Your task to perform on an android device: turn off sleep mode Image 0: 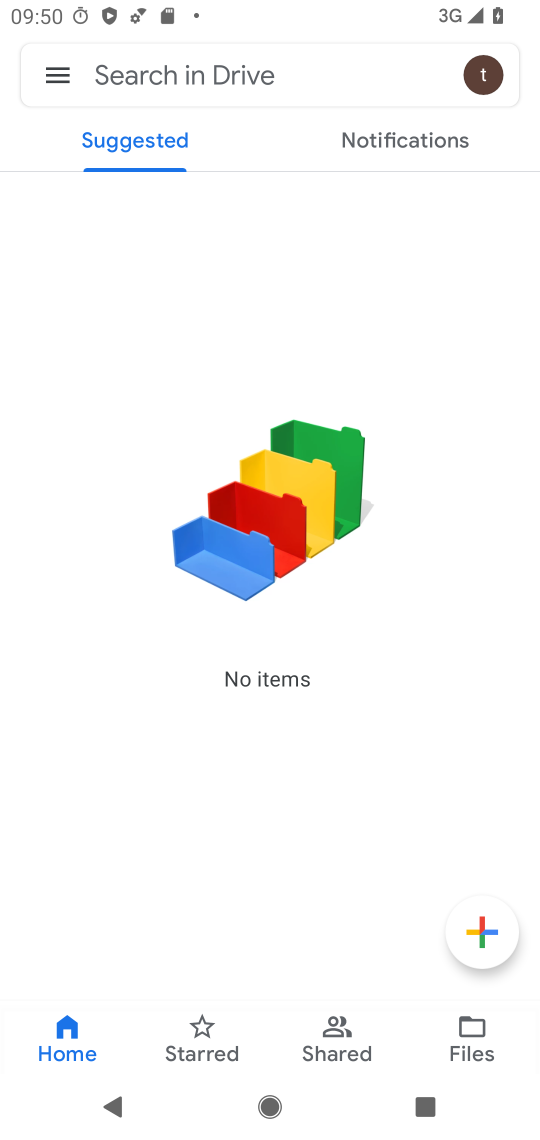
Step 0: press home button
Your task to perform on an android device: turn off sleep mode Image 1: 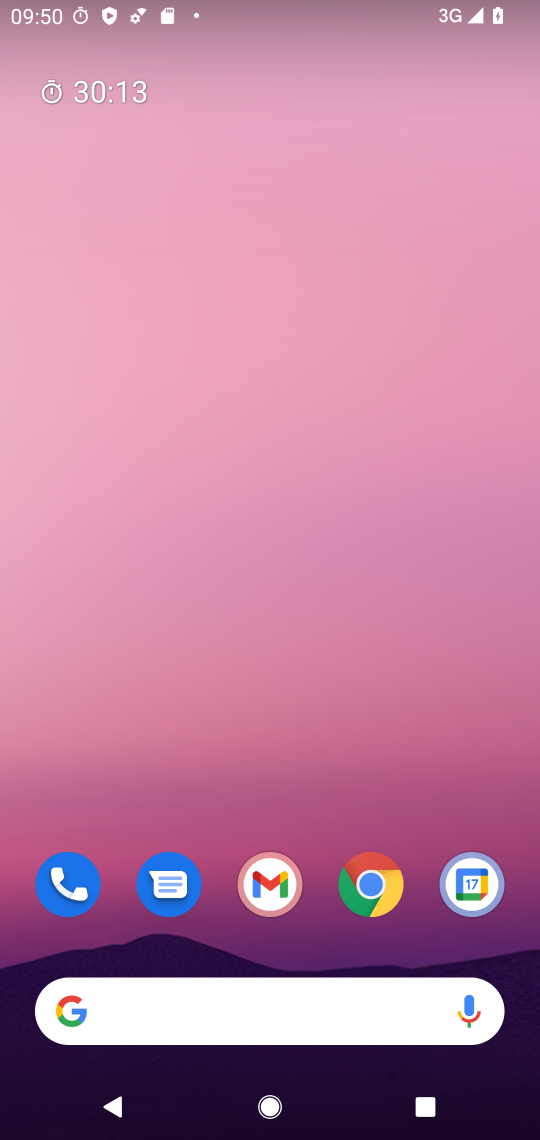
Step 1: drag from (283, 762) to (260, 239)
Your task to perform on an android device: turn off sleep mode Image 2: 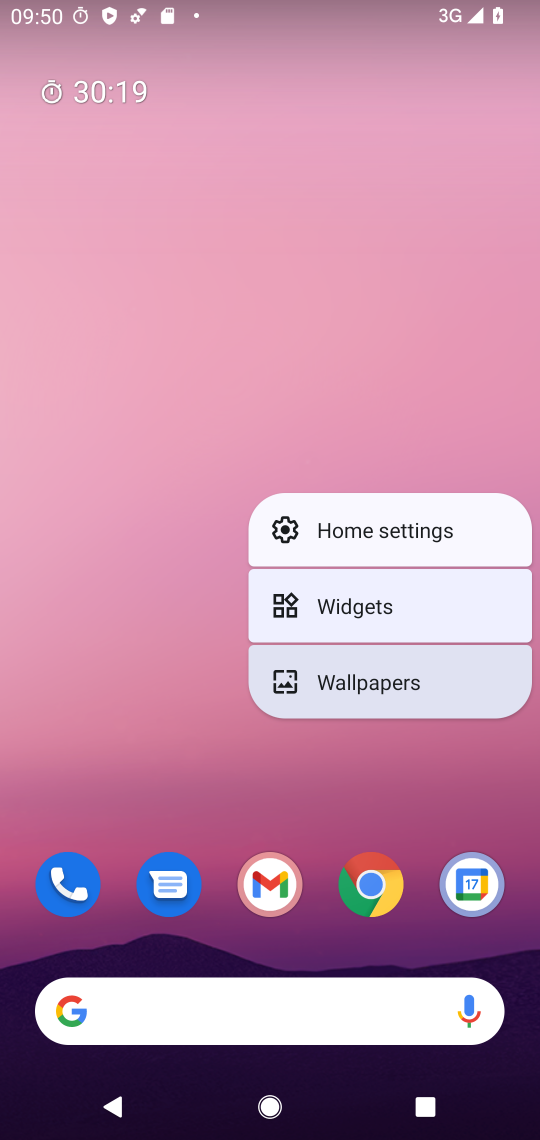
Step 2: click (232, 758)
Your task to perform on an android device: turn off sleep mode Image 3: 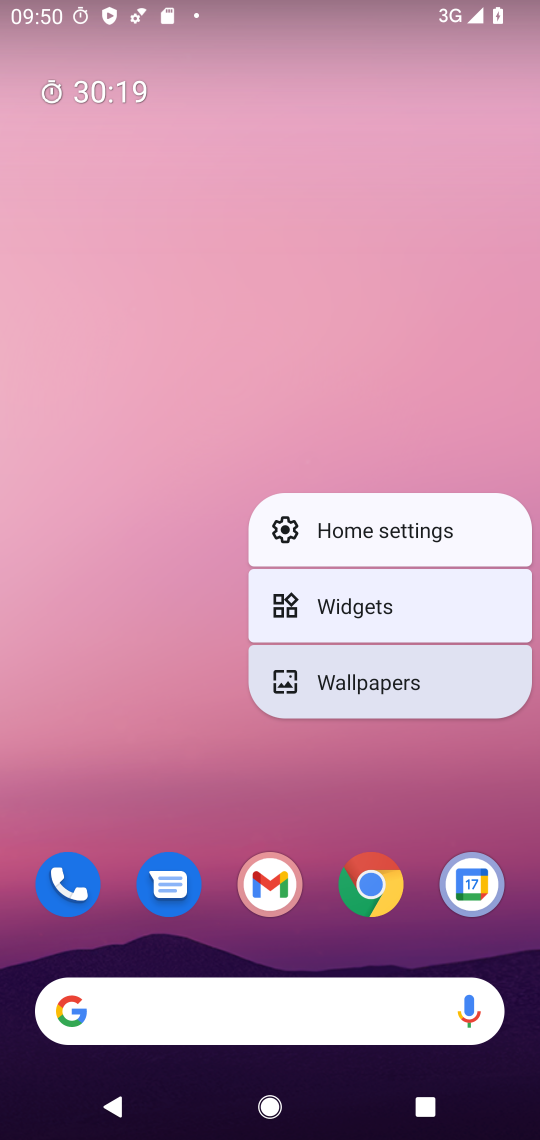
Step 3: drag from (232, 758) to (179, 317)
Your task to perform on an android device: turn off sleep mode Image 4: 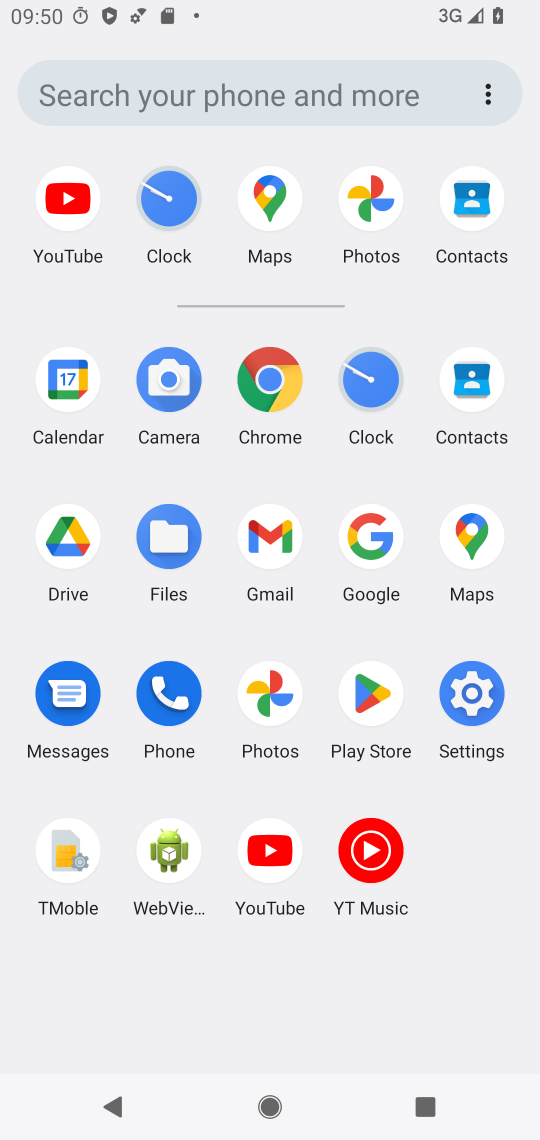
Step 4: click (440, 699)
Your task to perform on an android device: turn off sleep mode Image 5: 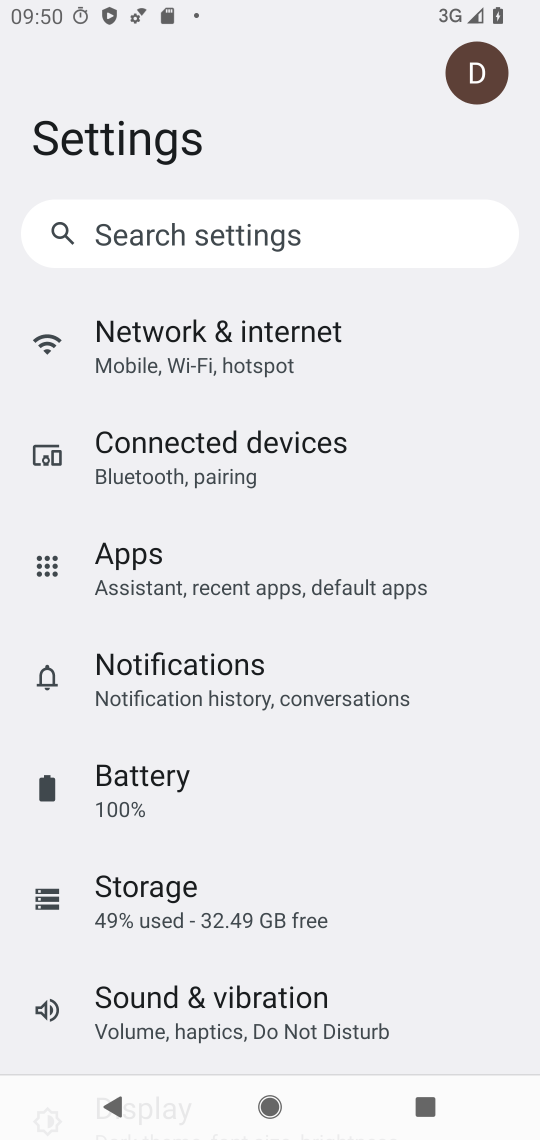
Step 5: drag from (152, 808) to (218, 347)
Your task to perform on an android device: turn off sleep mode Image 6: 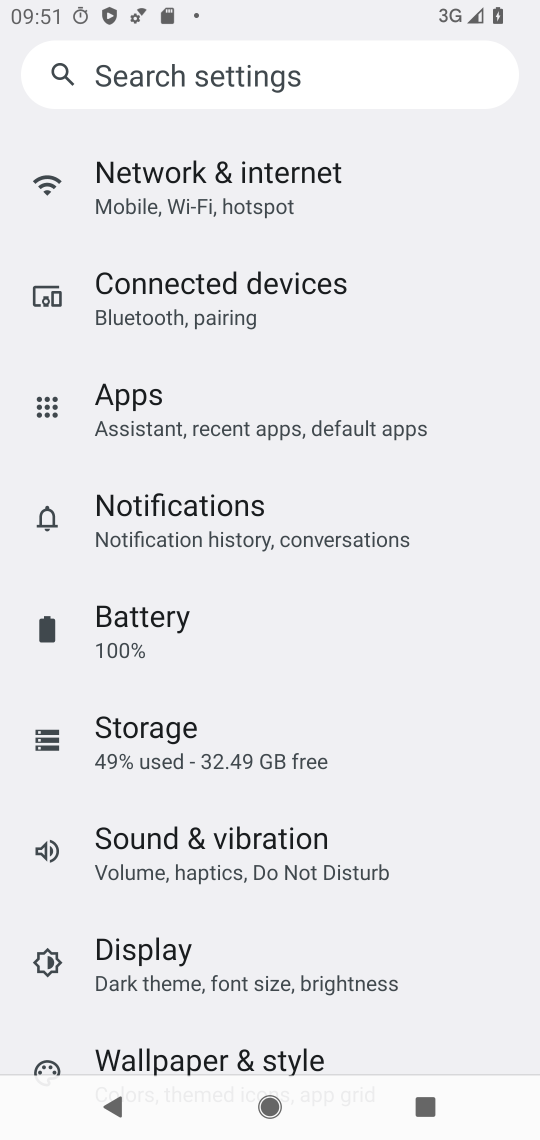
Step 6: click (160, 951)
Your task to perform on an android device: turn off sleep mode Image 7: 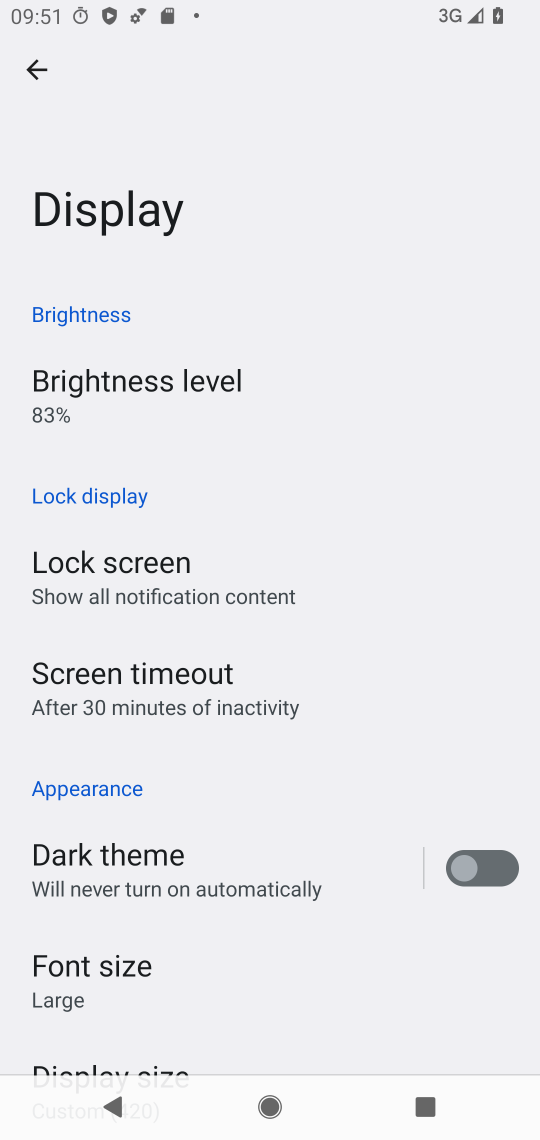
Step 7: click (273, 670)
Your task to perform on an android device: turn off sleep mode Image 8: 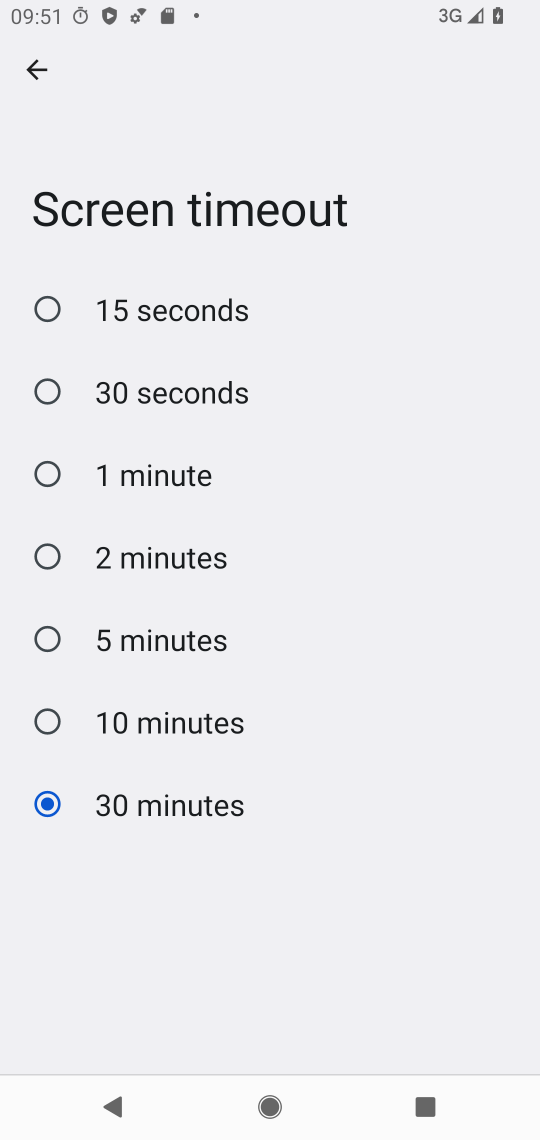
Step 8: click (129, 537)
Your task to perform on an android device: turn off sleep mode Image 9: 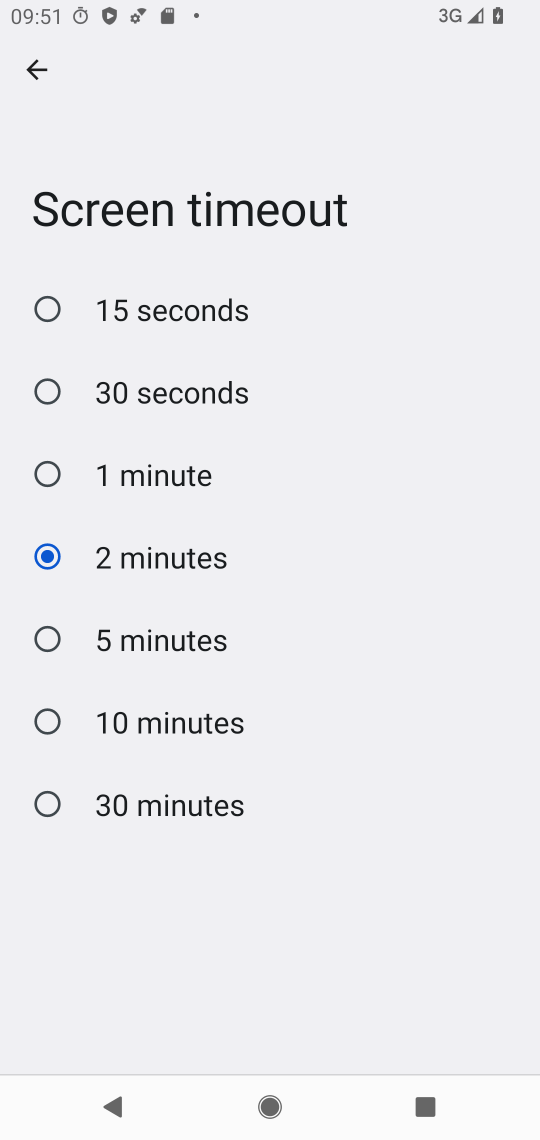
Step 9: task complete